Your task to perform on an android device: turn on location history Image 0: 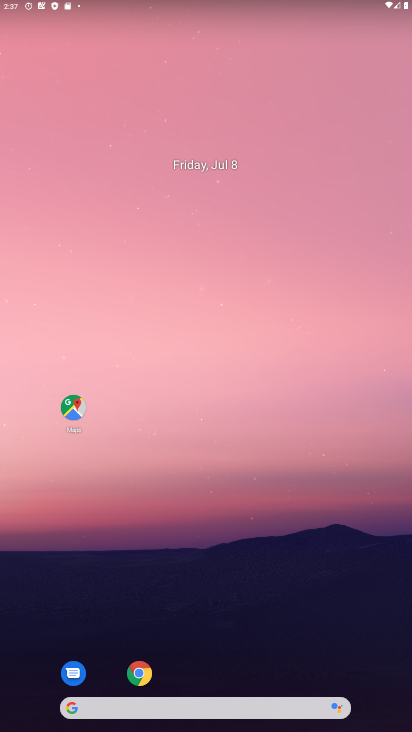
Step 0: drag from (283, 619) to (288, 374)
Your task to perform on an android device: turn on location history Image 1: 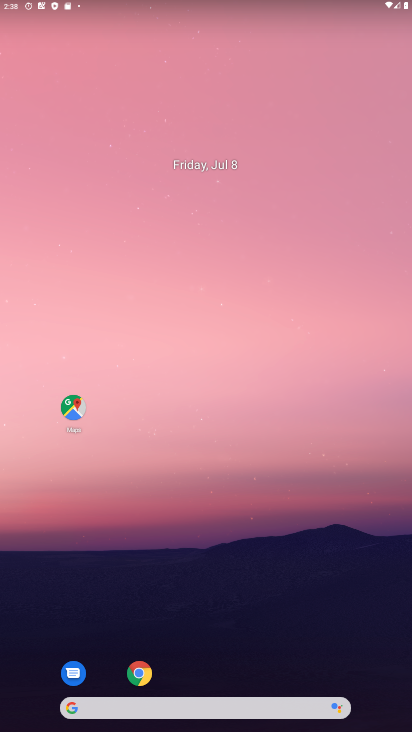
Step 1: drag from (214, 693) to (312, 156)
Your task to perform on an android device: turn on location history Image 2: 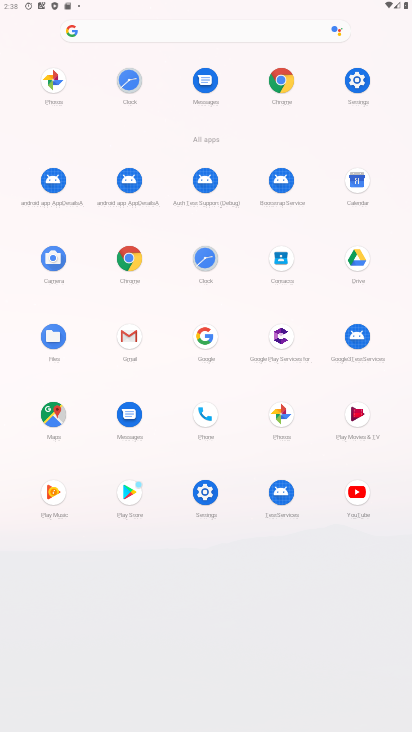
Step 2: click (361, 84)
Your task to perform on an android device: turn on location history Image 3: 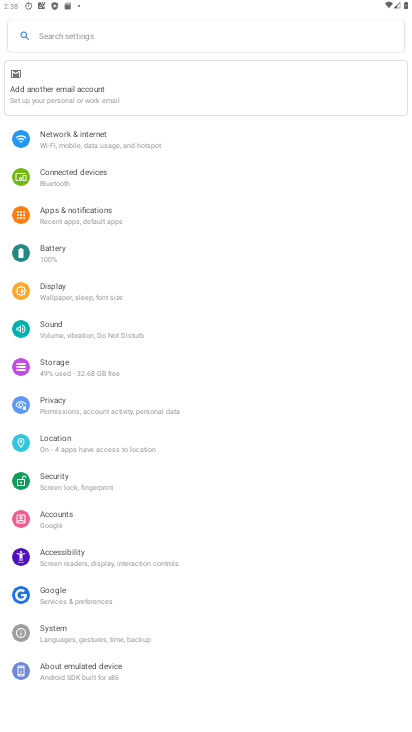
Step 3: click (66, 443)
Your task to perform on an android device: turn on location history Image 4: 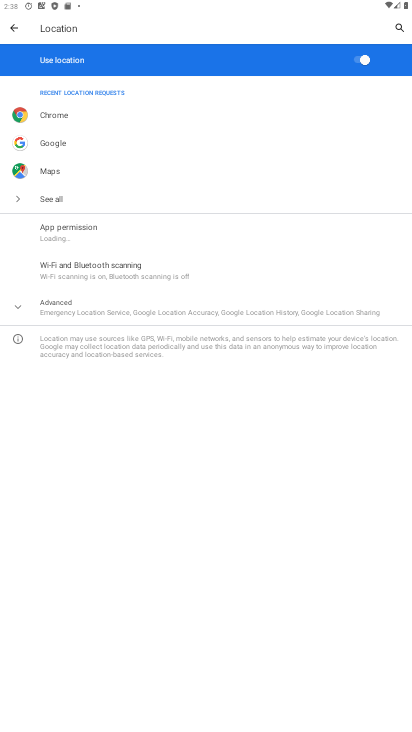
Step 4: click (108, 311)
Your task to perform on an android device: turn on location history Image 5: 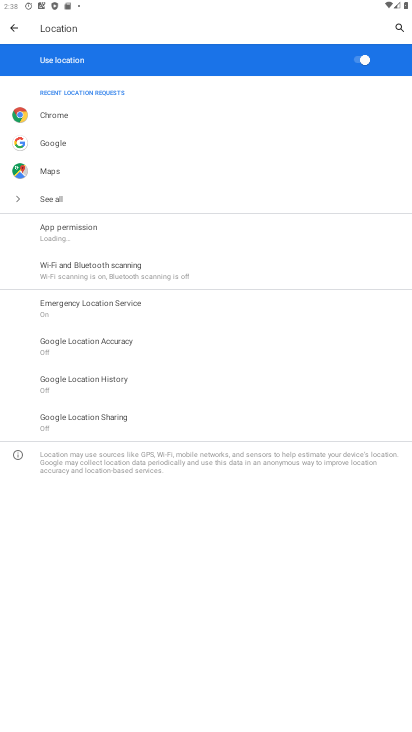
Step 5: click (104, 375)
Your task to perform on an android device: turn on location history Image 6: 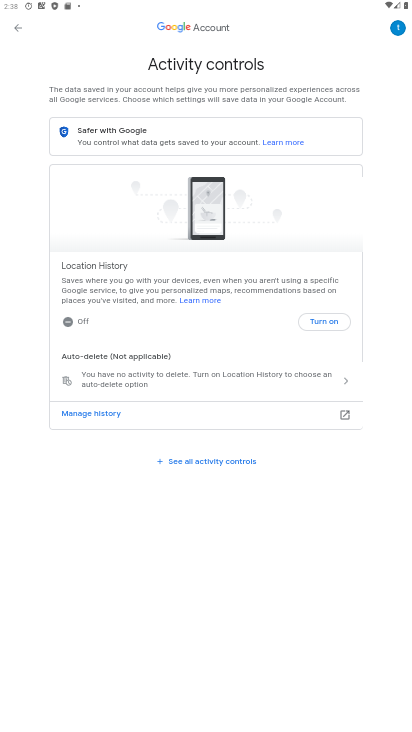
Step 6: click (332, 322)
Your task to perform on an android device: turn on location history Image 7: 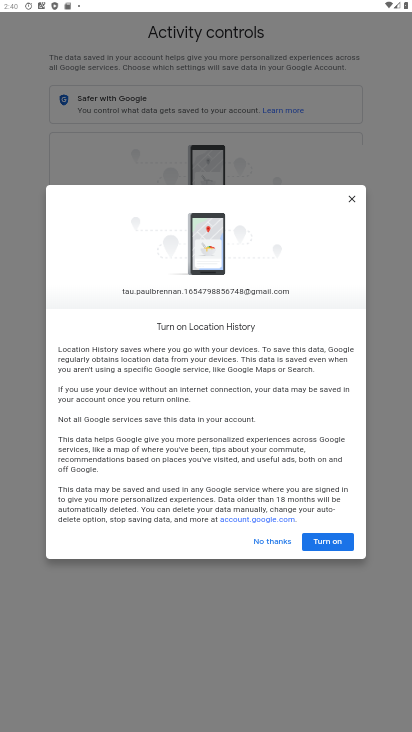
Step 7: click (337, 529)
Your task to perform on an android device: turn on location history Image 8: 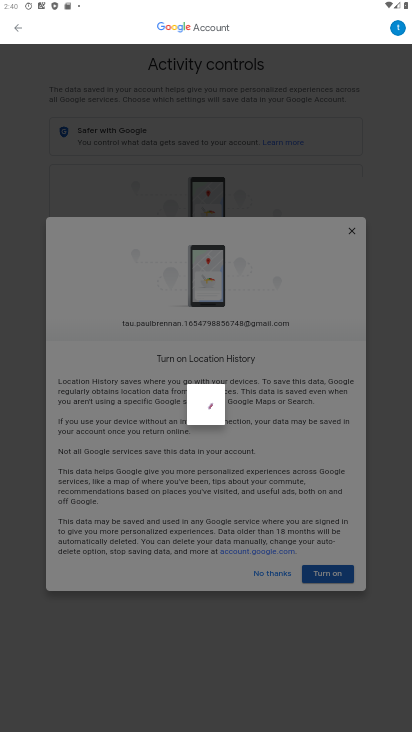
Step 8: click (329, 545)
Your task to perform on an android device: turn on location history Image 9: 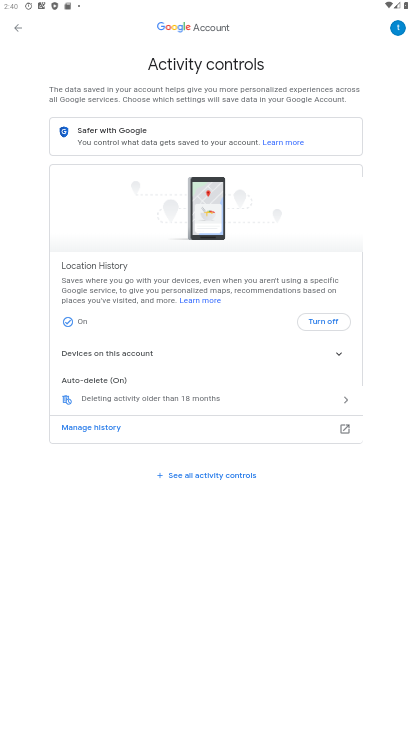
Step 9: task complete